Your task to perform on an android device: Open network settings Image 0: 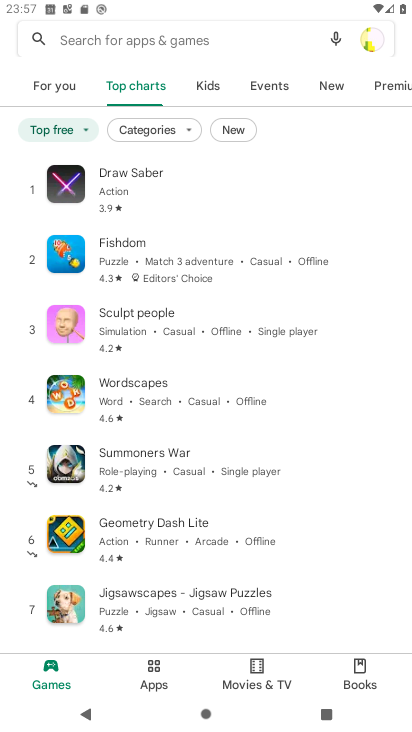
Step 0: press home button
Your task to perform on an android device: Open network settings Image 1: 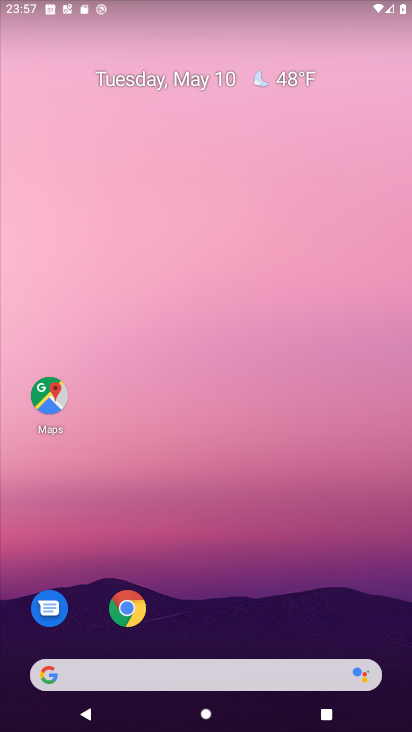
Step 1: drag from (252, 599) to (220, 236)
Your task to perform on an android device: Open network settings Image 2: 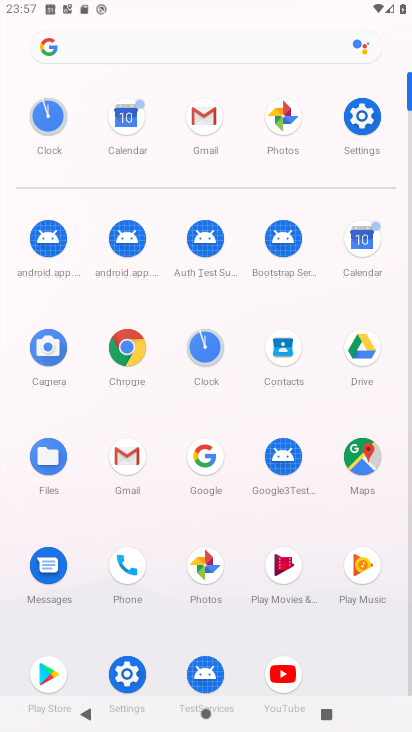
Step 2: click (363, 133)
Your task to perform on an android device: Open network settings Image 3: 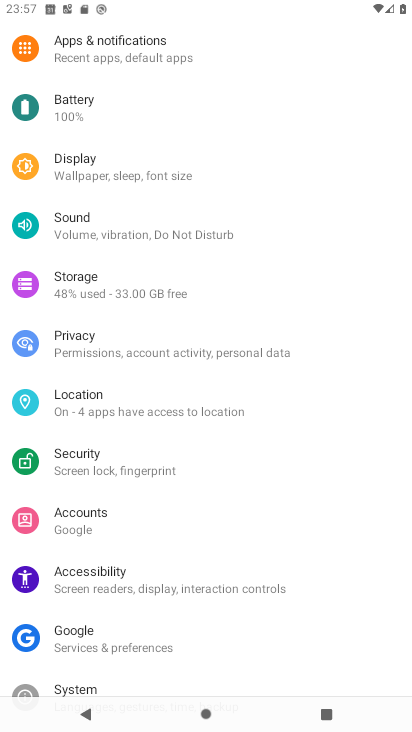
Step 3: drag from (235, 112) to (194, 378)
Your task to perform on an android device: Open network settings Image 4: 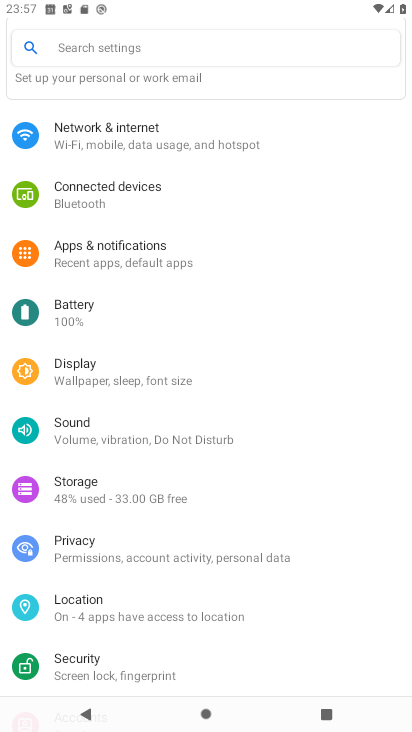
Step 4: click (215, 138)
Your task to perform on an android device: Open network settings Image 5: 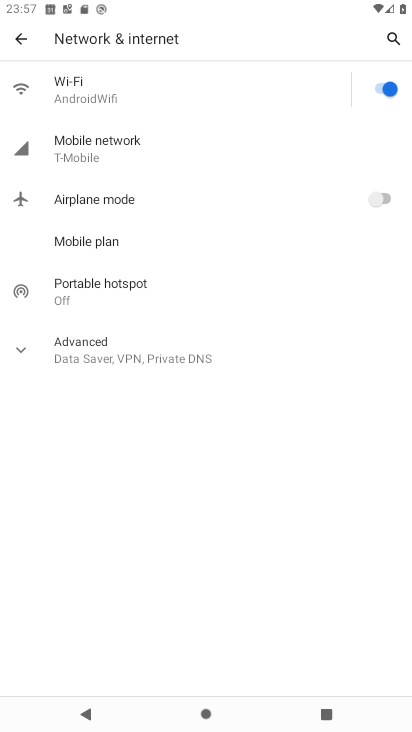
Step 5: click (195, 134)
Your task to perform on an android device: Open network settings Image 6: 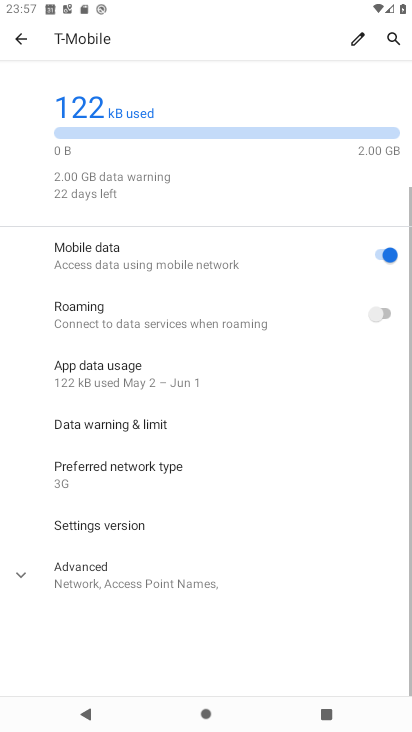
Step 6: click (71, 583)
Your task to perform on an android device: Open network settings Image 7: 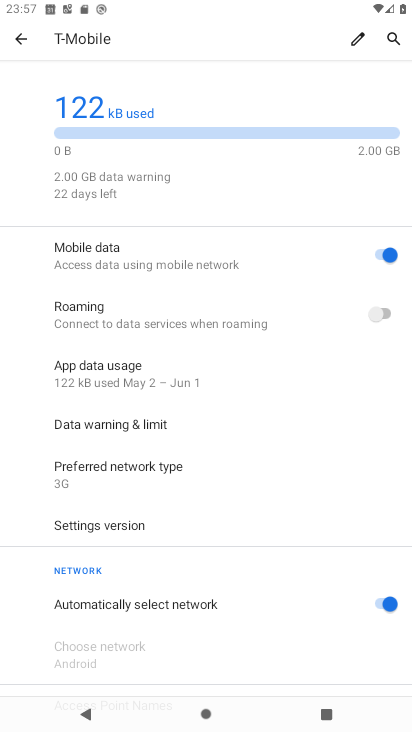
Step 7: task complete